Your task to perform on an android device: Show me popular games on the Play Store Image 0: 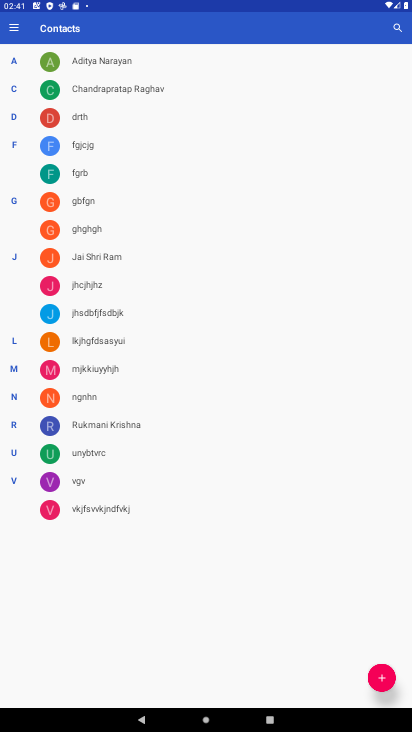
Step 0: press home button
Your task to perform on an android device: Show me popular games on the Play Store Image 1: 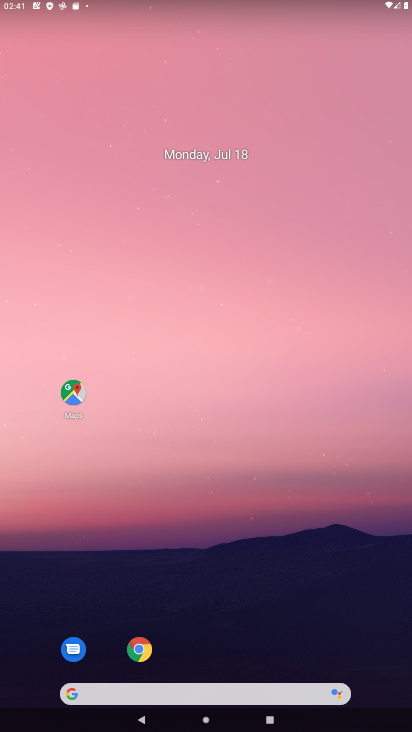
Step 1: drag from (198, 713) to (225, 39)
Your task to perform on an android device: Show me popular games on the Play Store Image 2: 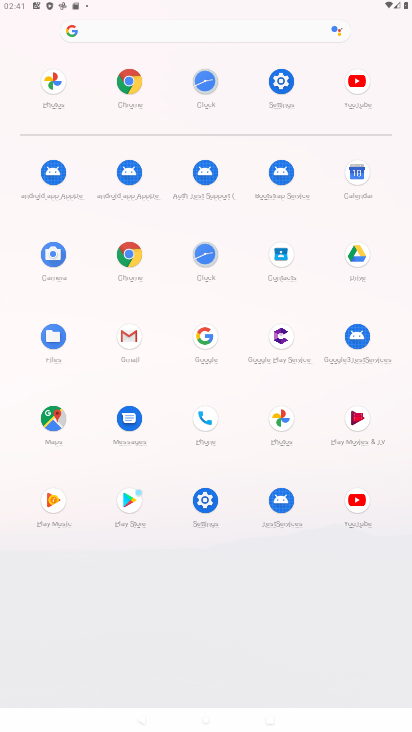
Step 2: click (132, 498)
Your task to perform on an android device: Show me popular games on the Play Store Image 3: 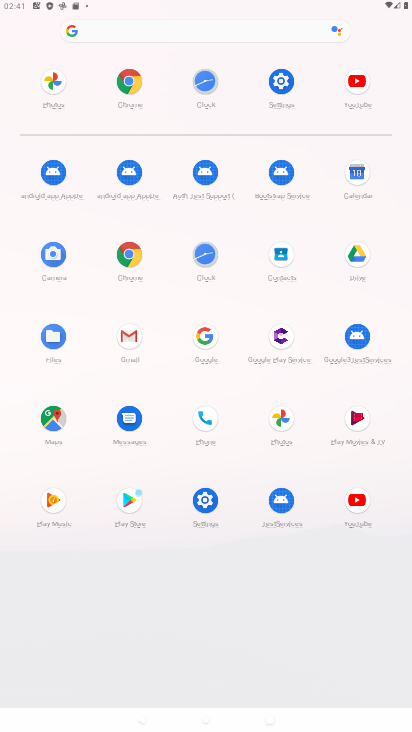
Step 3: click (132, 498)
Your task to perform on an android device: Show me popular games on the Play Store Image 4: 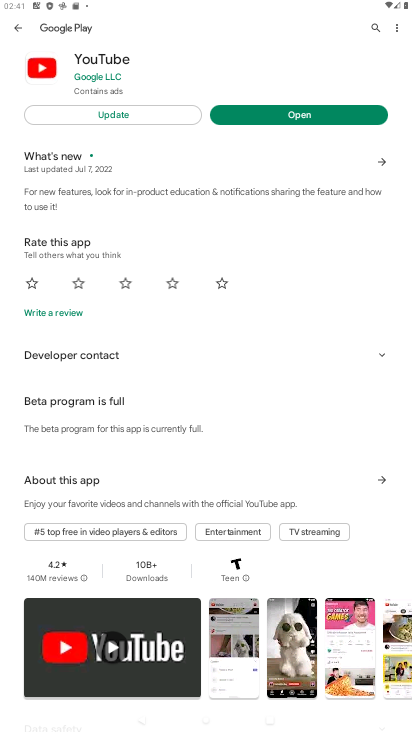
Step 4: click (19, 28)
Your task to perform on an android device: Show me popular games on the Play Store Image 5: 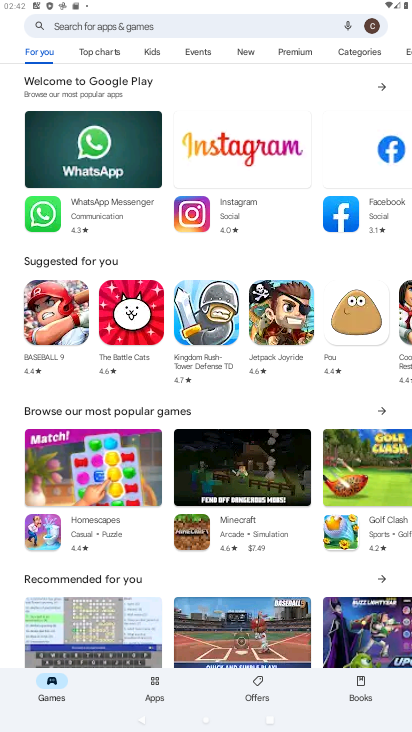
Step 5: task complete